Your task to perform on an android device: Go to settings Image 0: 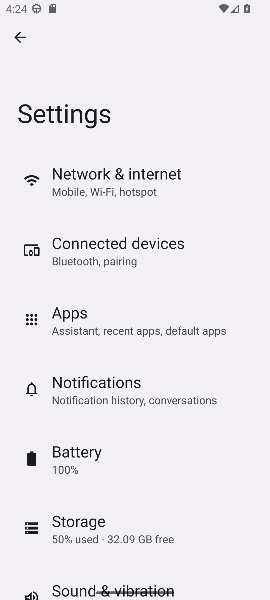
Step 0: drag from (149, 490) to (147, 117)
Your task to perform on an android device: Go to settings Image 1: 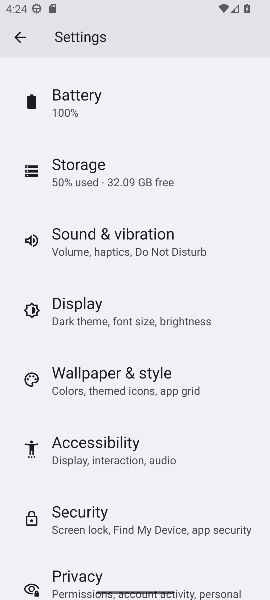
Step 1: task complete